Your task to perform on an android device: Open calendar and show me the third week of next month Image 0: 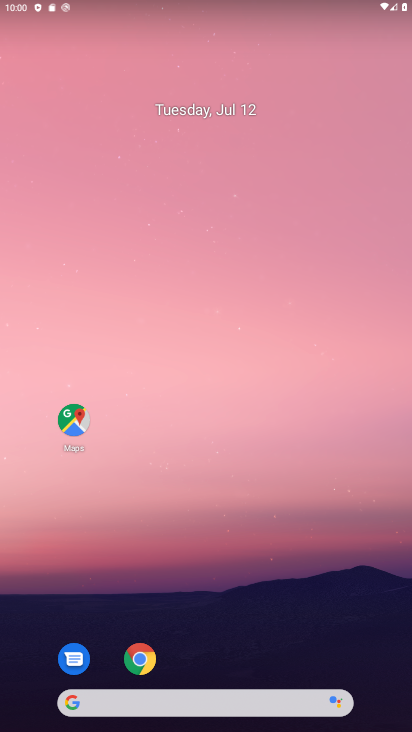
Step 0: drag from (233, 656) to (250, 176)
Your task to perform on an android device: Open calendar and show me the third week of next month Image 1: 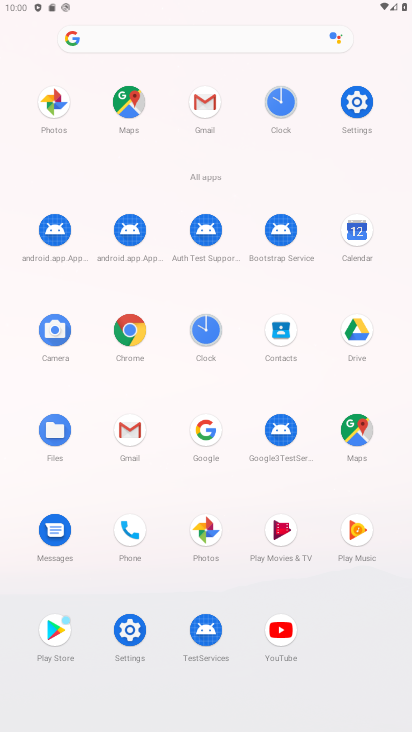
Step 1: click (355, 221)
Your task to perform on an android device: Open calendar and show me the third week of next month Image 2: 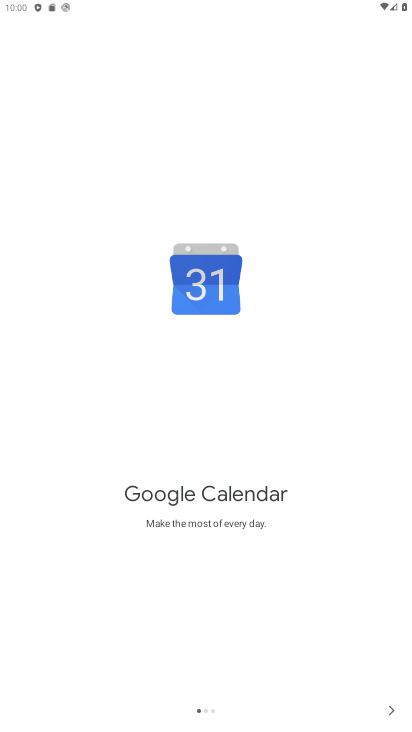
Step 2: click (377, 705)
Your task to perform on an android device: Open calendar and show me the third week of next month Image 3: 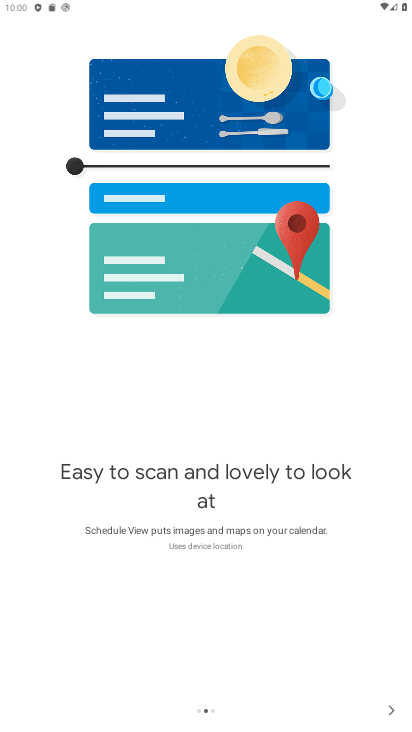
Step 3: click (389, 711)
Your task to perform on an android device: Open calendar and show me the third week of next month Image 4: 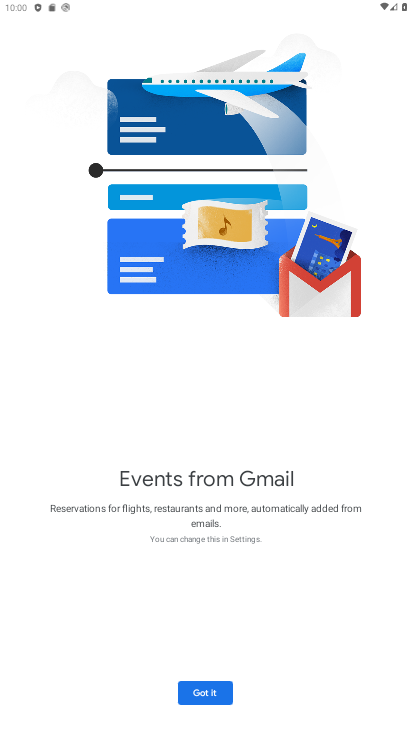
Step 4: click (216, 695)
Your task to perform on an android device: Open calendar and show me the third week of next month Image 5: 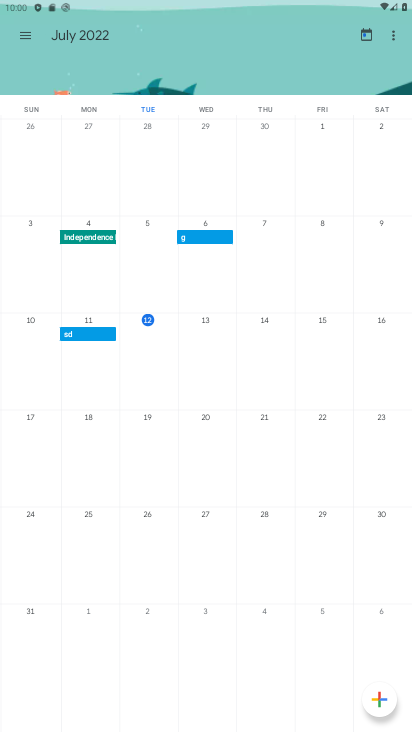
Step 5: task complete